Your task to perform on an android device: turn on location history Image 0: 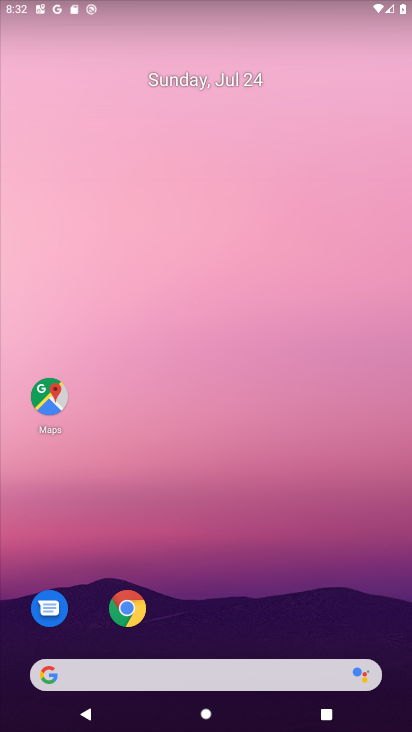
Step 0: drag from (273, 651) to (310, 229)
Your task to perform on an android device: turn on location history Image 1: 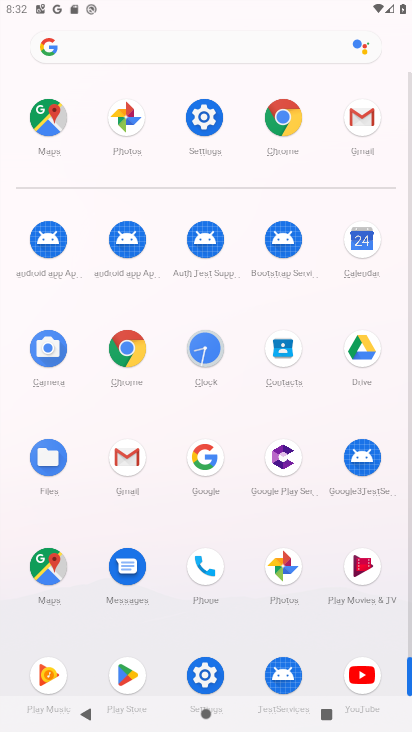
Step 1: click (197, 121)
Your task to perform on an android device: turn on location history Image 2: 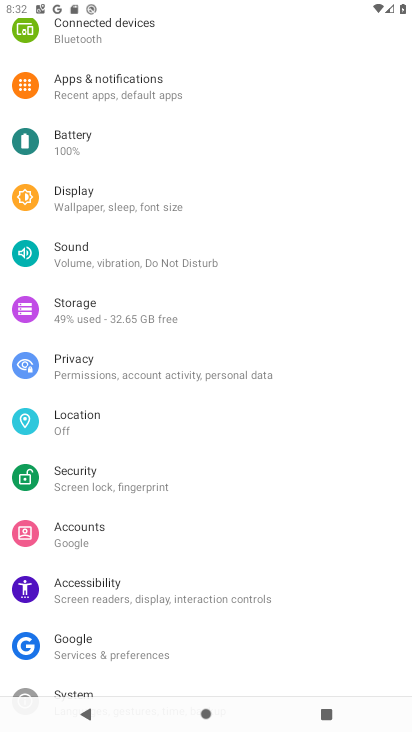
Step 2: click (109, 430)
Your task to perform on an android device: turn on location history Image 3: 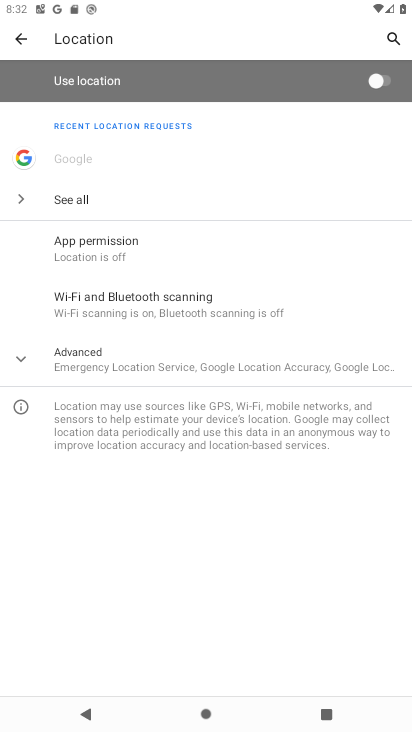
Step 3: click (175, 360)
Your task to perform on an android device: turn on location history Image 4: 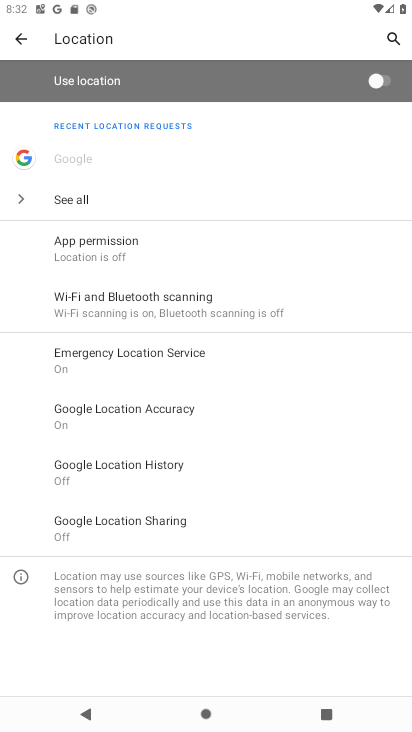
Step 4: click (122, 481)
Your task to perform on an android device: turn on location history Image 5: 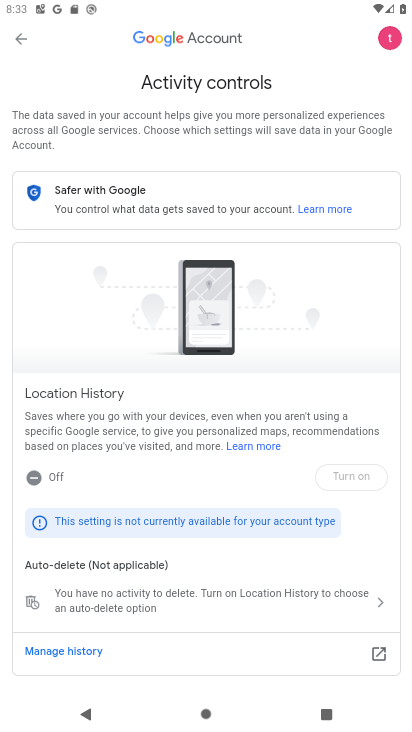
Step 5: task complete